Your task to perform on an android device: open the mobile data screen to see how much data has been used Image 0: 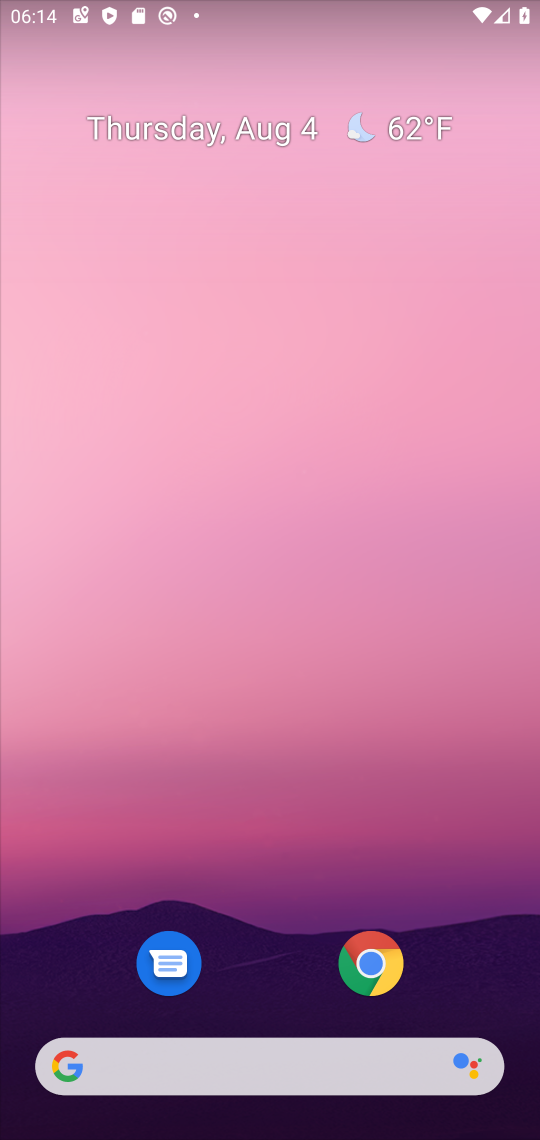
Step 0: drag from (250, 909) to (177, 167)
Your task to perform on an android device: open the mobile data screen to see how much data has been used Image 1: 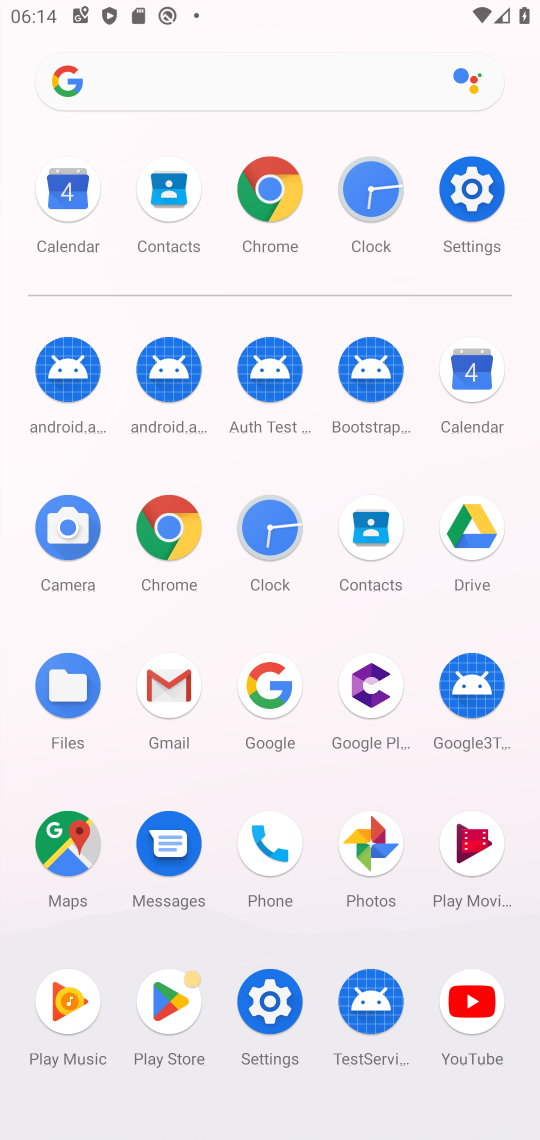
Step 1: click (473, 189)
Your task to perform on an android device: open the mobile data screen to see how much data has been used Image 2: 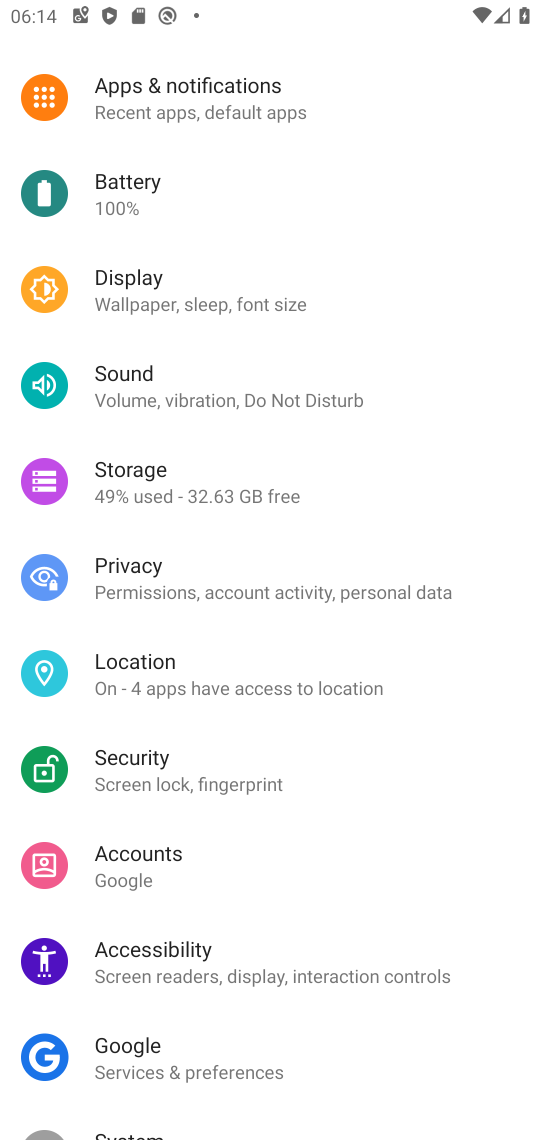
Step 2: drag from (230, 195) to (273, 928)
Your task to perform on an android device: open the mobile data screen to see how much data has been used Image 3: 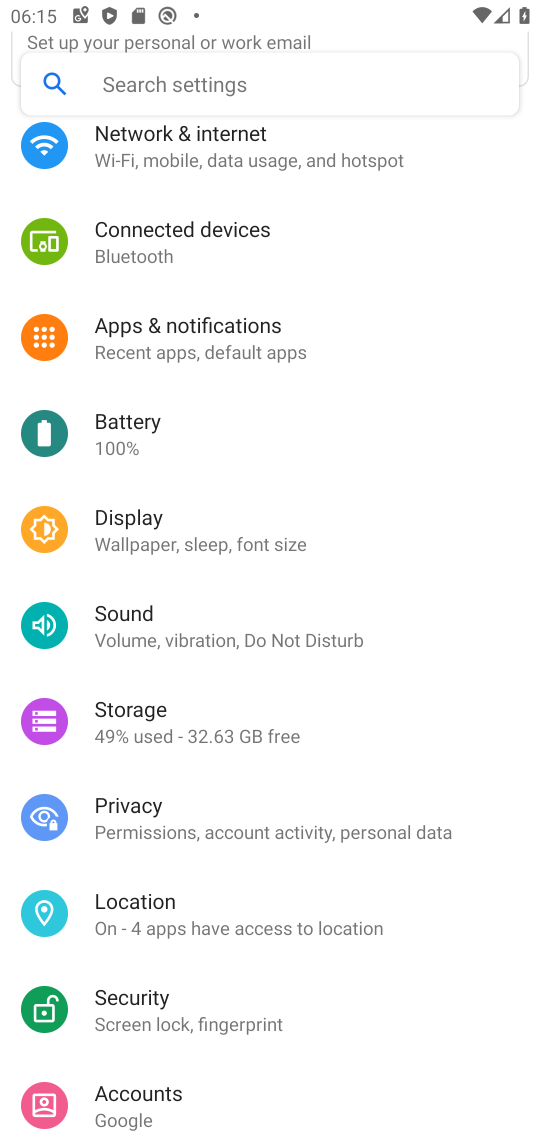
Step 3: click (190, 136)
Your task to perform on an android device: open the mobile data screen to see how much data has been used Image 4: 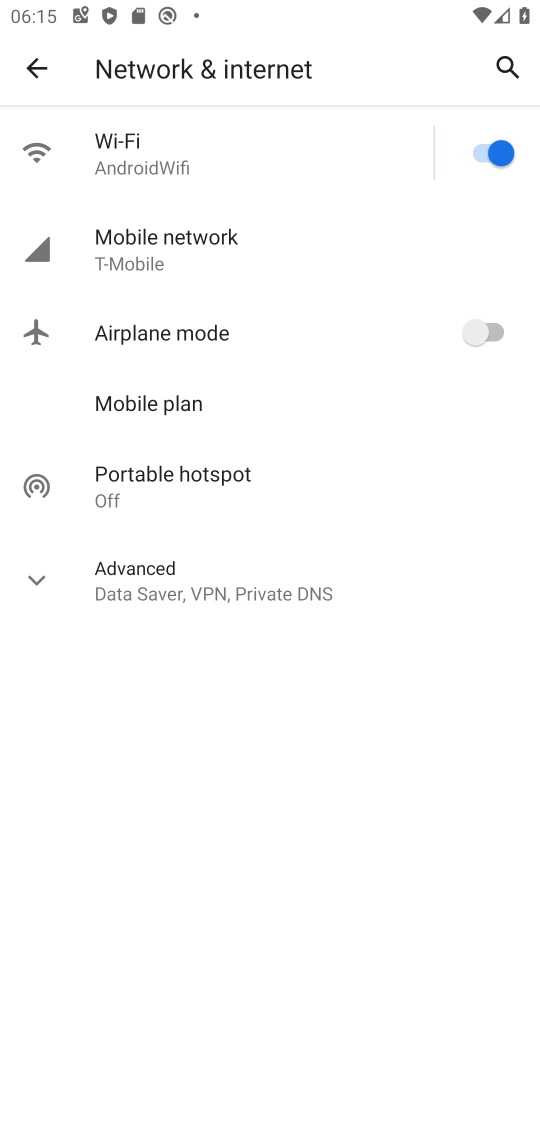
Step 4: click (174, 239)
Your task to perform on an android device: open the mobile data screen to see how much data has been used Image 5: 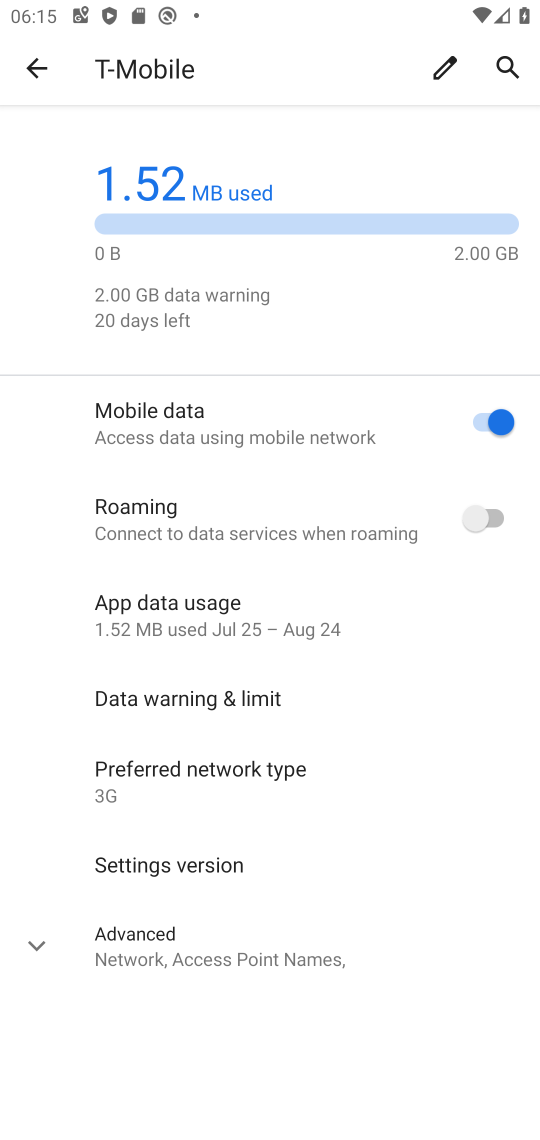
Step 5: task complete